Your task to perform on an android device: Is it going to rain tomorrow? Image 0: 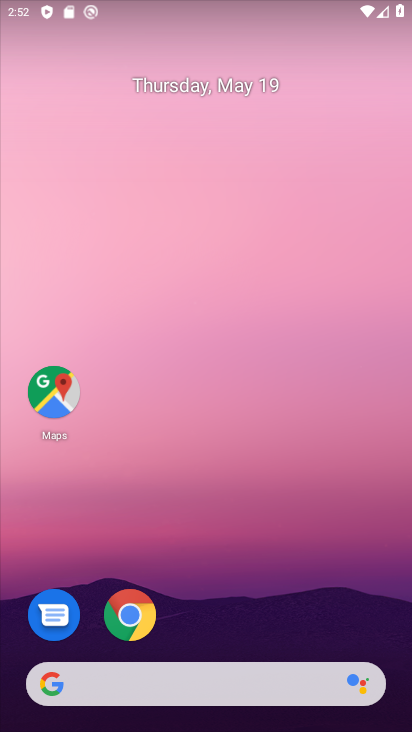
Step 0: press home button
Your task to perform on an android device: Is it going to rain tomorrow? Image 1: 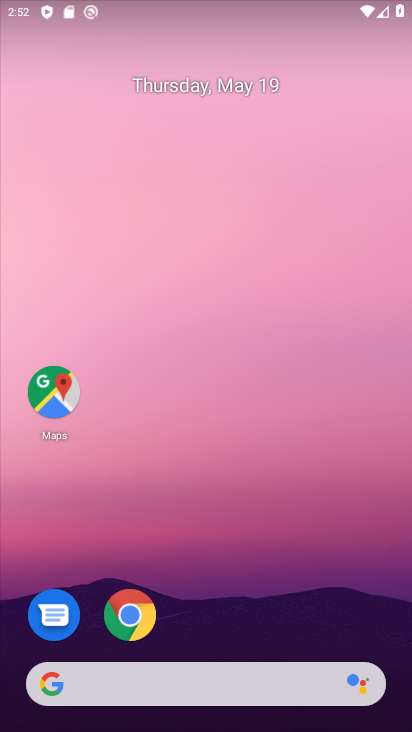
Step 1: click (143, 614)
Your task to perform on an android device: Is it going to rain tomorrow? Image 2: 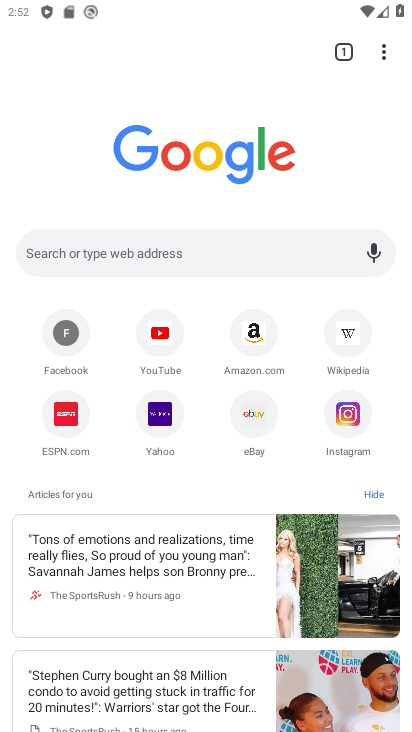
Step 2: click (225, 256)
Your task to perform on an android device: Is it going to rain tomorrow? Image 3: 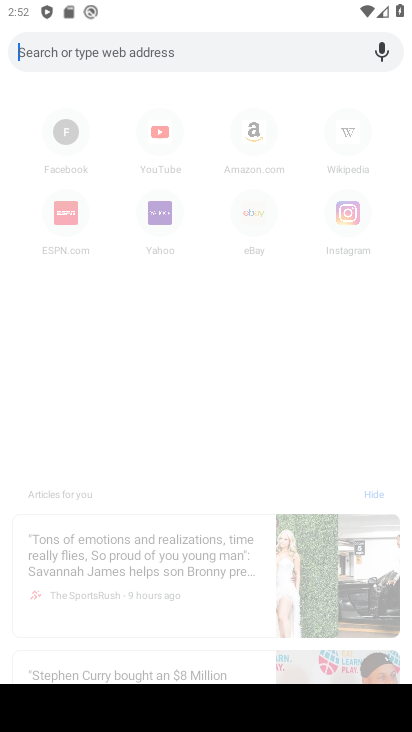
Step 3: type "Is it going to rain tomorrow?"
Your task to perform on an android device: Is it going to rain tomorrow? Image 4: 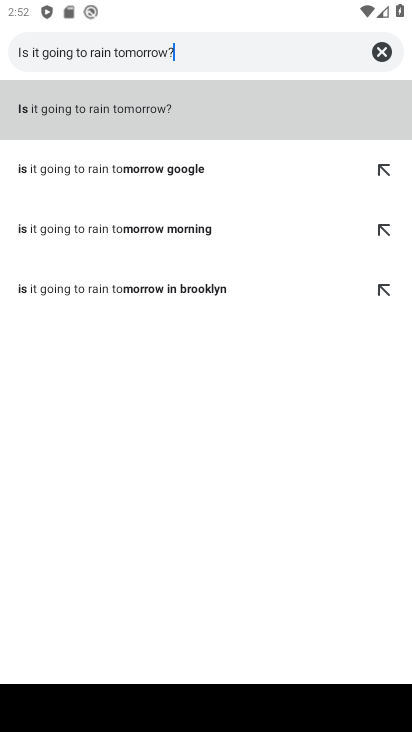
Step 4: click (226, 115)
Your task to perform on an android device: Is it going to rain tomorrow? Image 5: 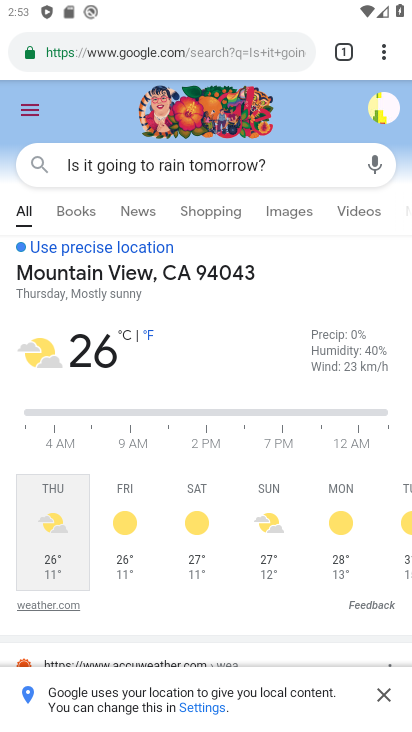
Step 5: task complete